Your task to perform on an android device: open the mobile data screen to see how much data has been used Image 0: 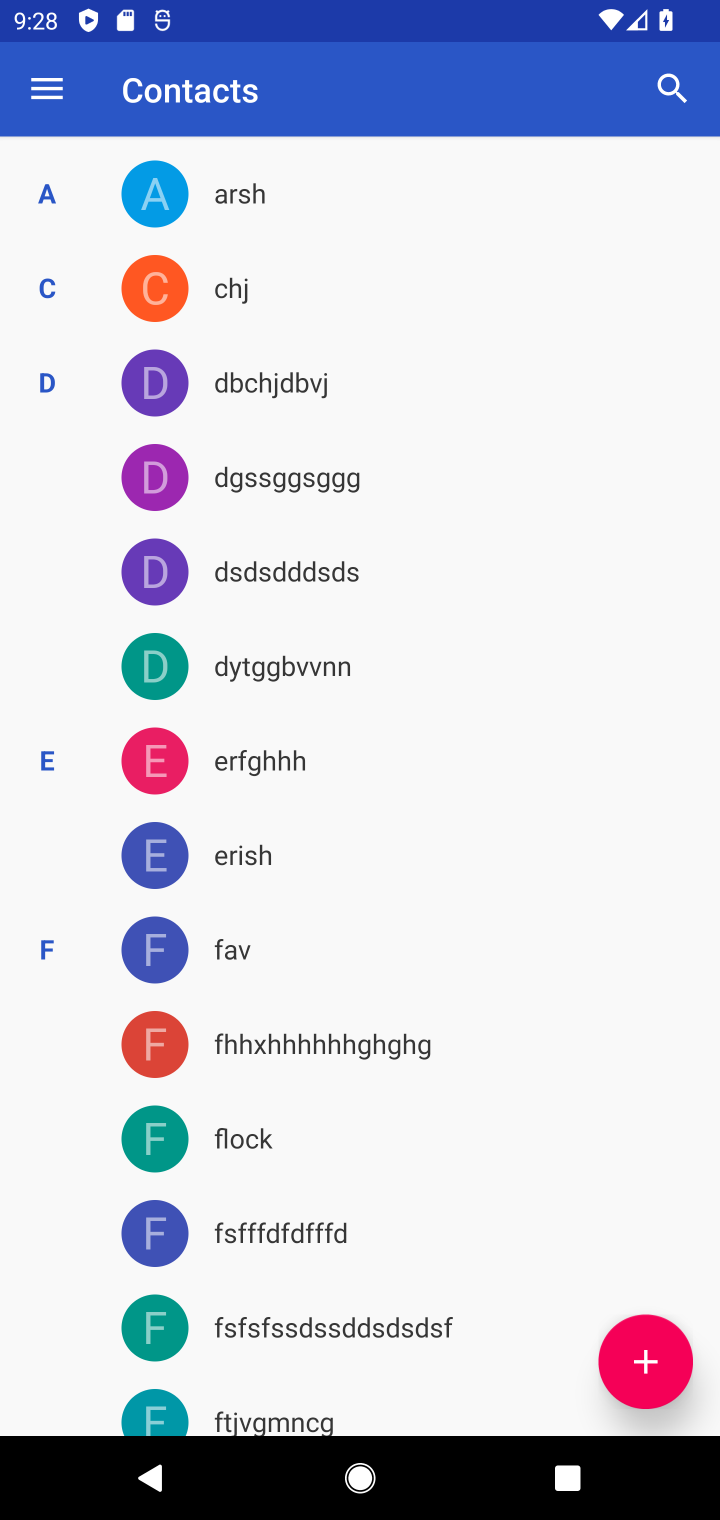
Step 0: press home button
Your task to perform on an android device: open the mobile data screen to see how much data has been used Image 1: 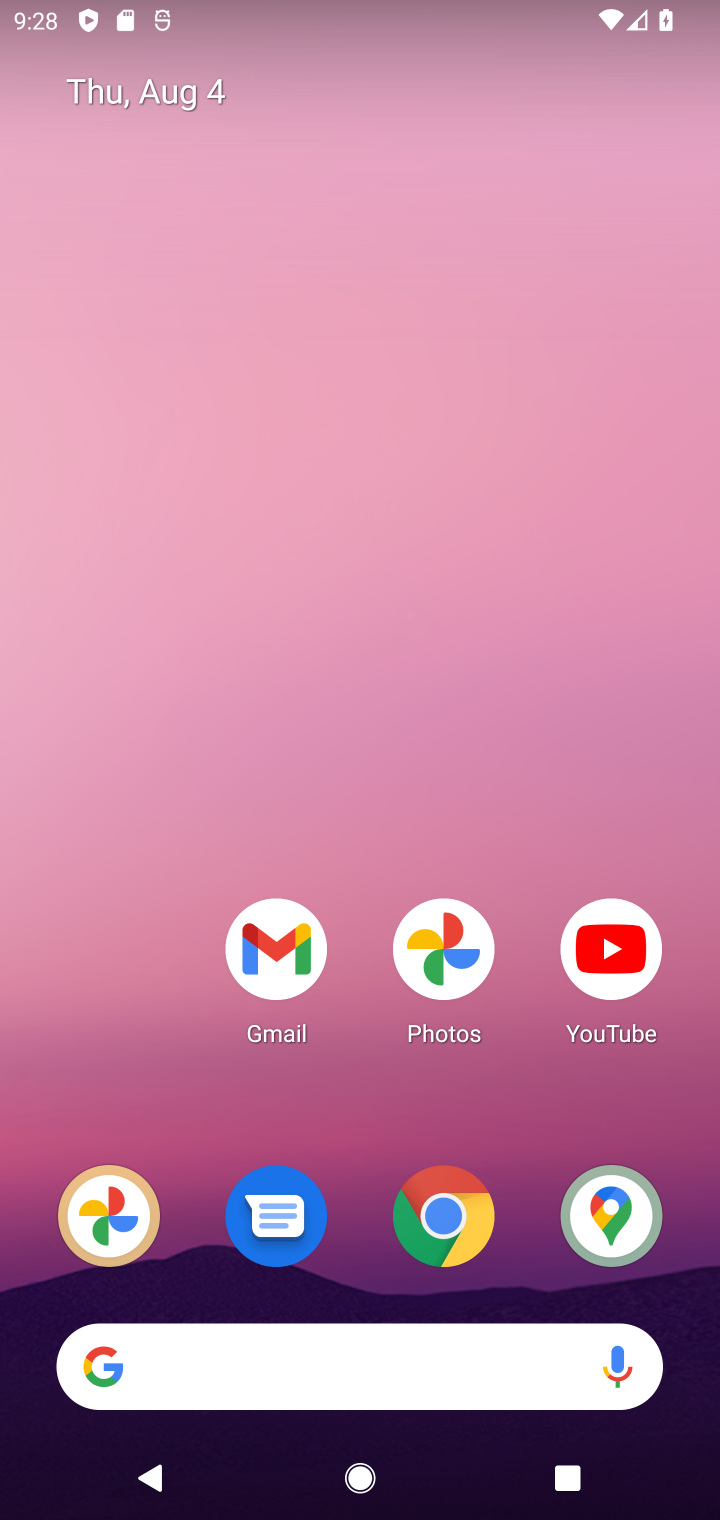
Step 1: drag from (286, 1356) to (390, 448)
Your task to perform on an android device: open the mobile data screen to see how much data has been used Image 2: 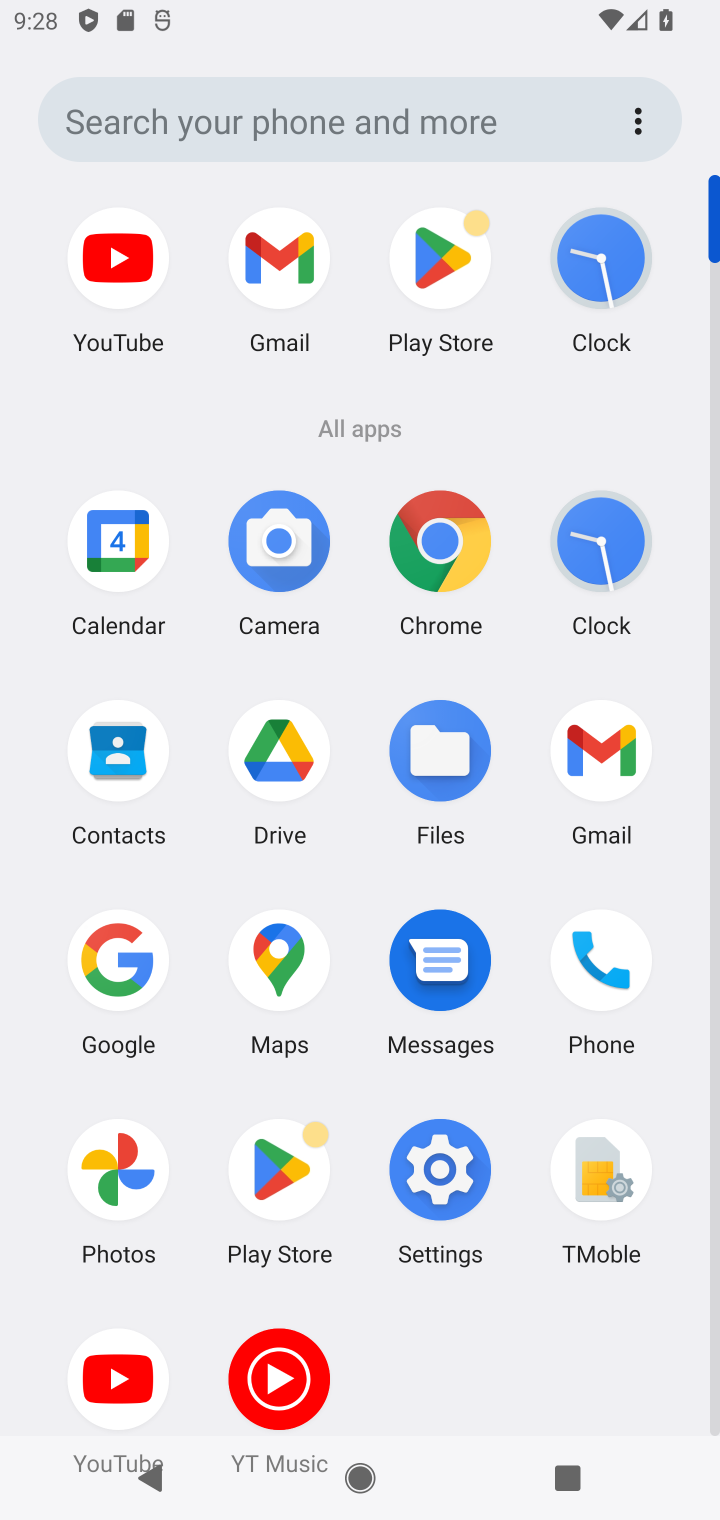
Step 2: click (440, 1166)
Your task to perform on an android device: open the mobile data screen to see how much data has been used Image 3: 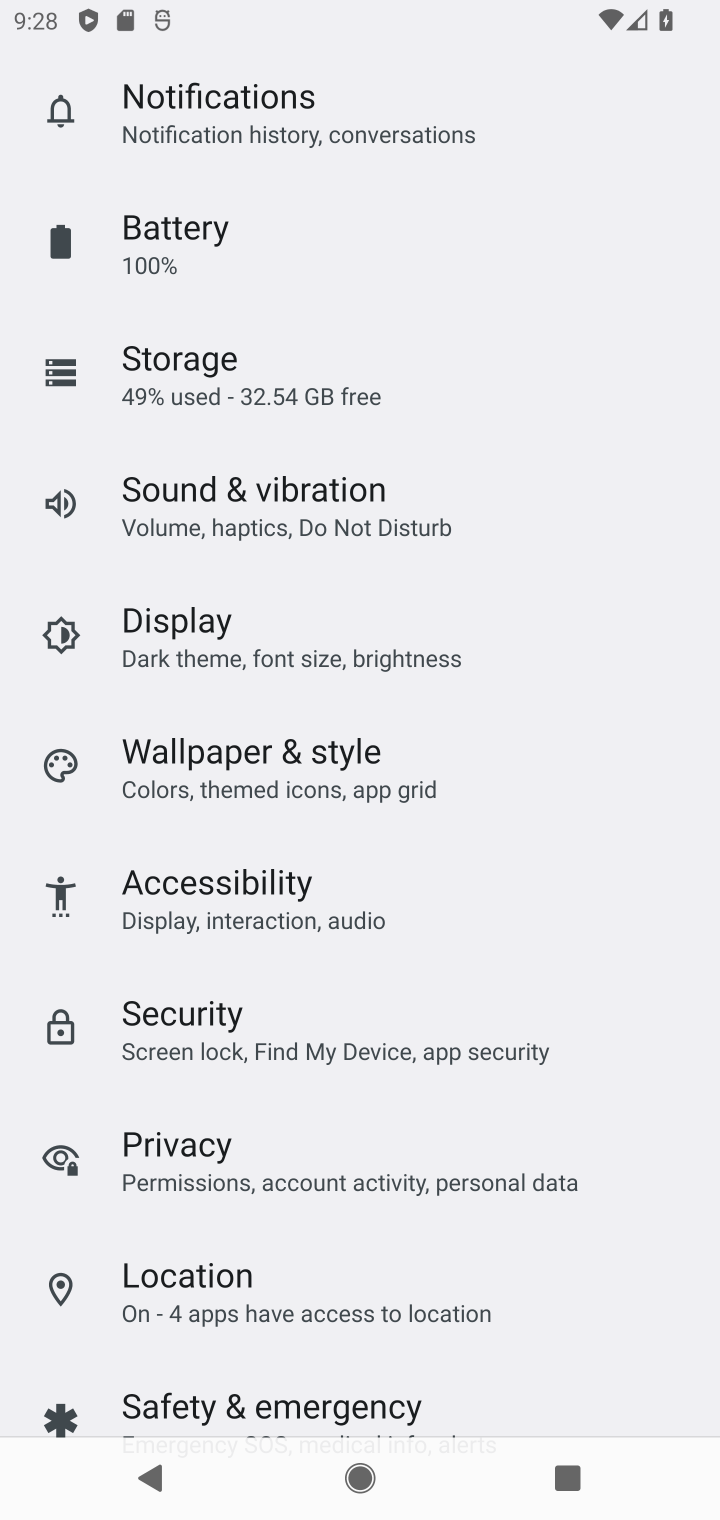
Step 3: drag from (444, 469) to (397, 1099)
Your task to perform on an android device: open the mobile data screen to see how much data has been used Image 4: 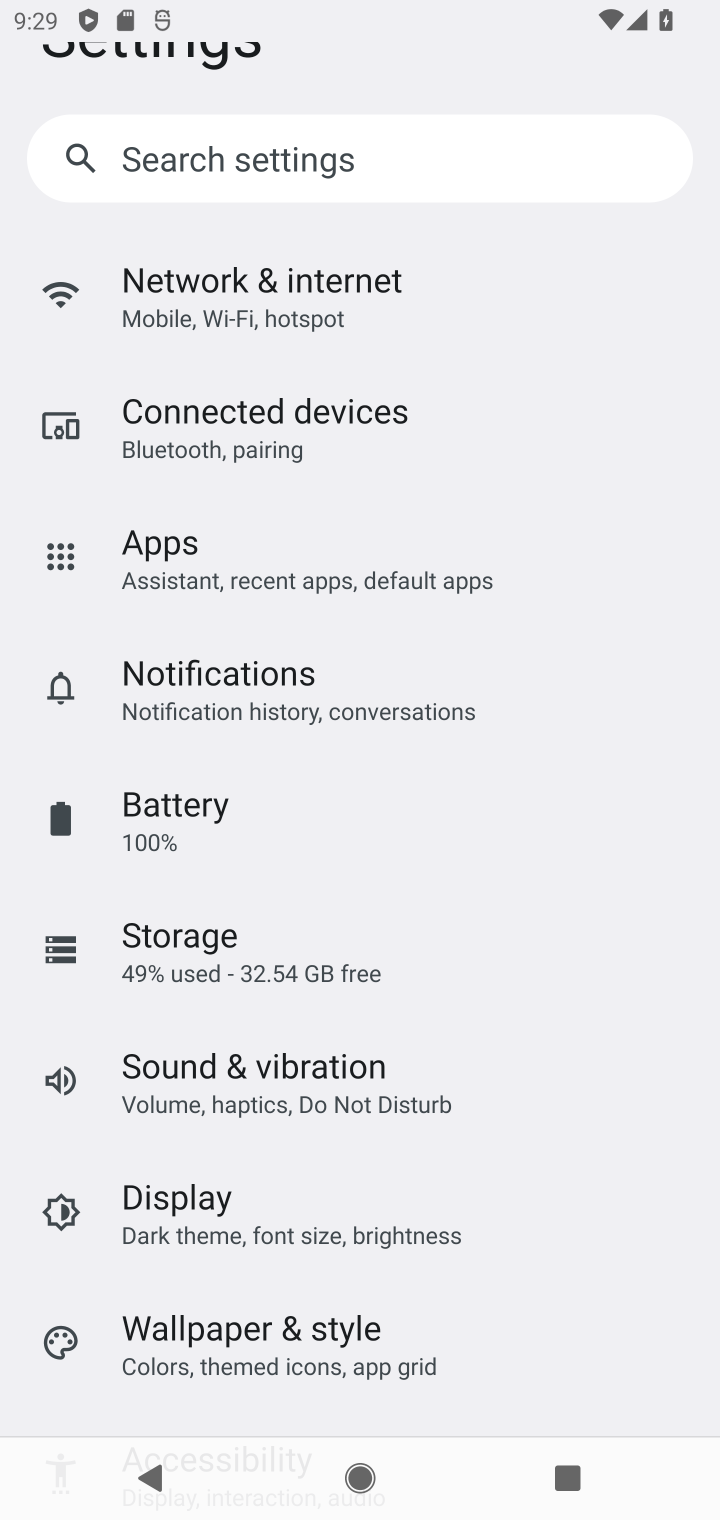
Step 4: drag from (435, 347) to (485, 856)
Your task to perform on an android device: open the mobile data screen to see how much data has been used Image 5: 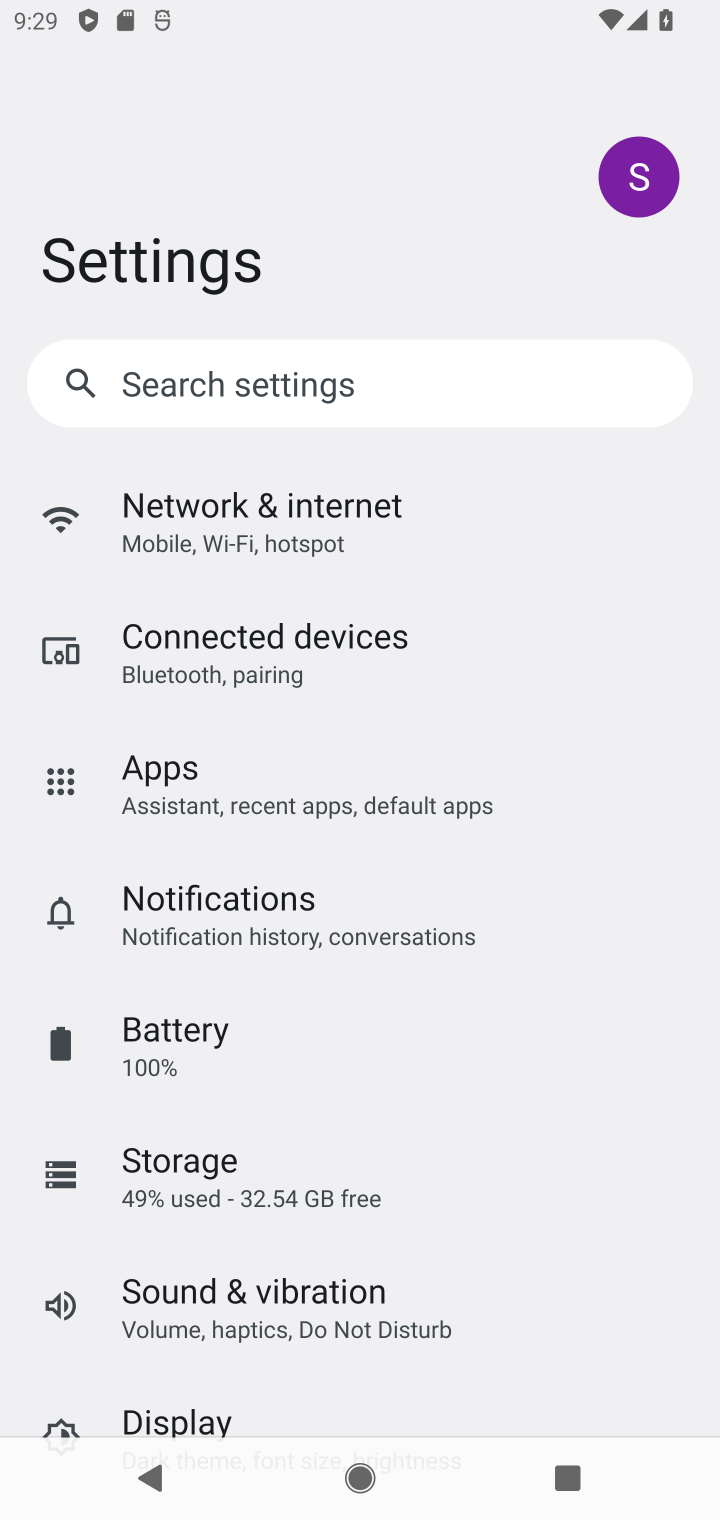
Step 5: click (270, 534)
Your task to perform on an android device: open the mobile data screen to see how much data has been used Image 6: 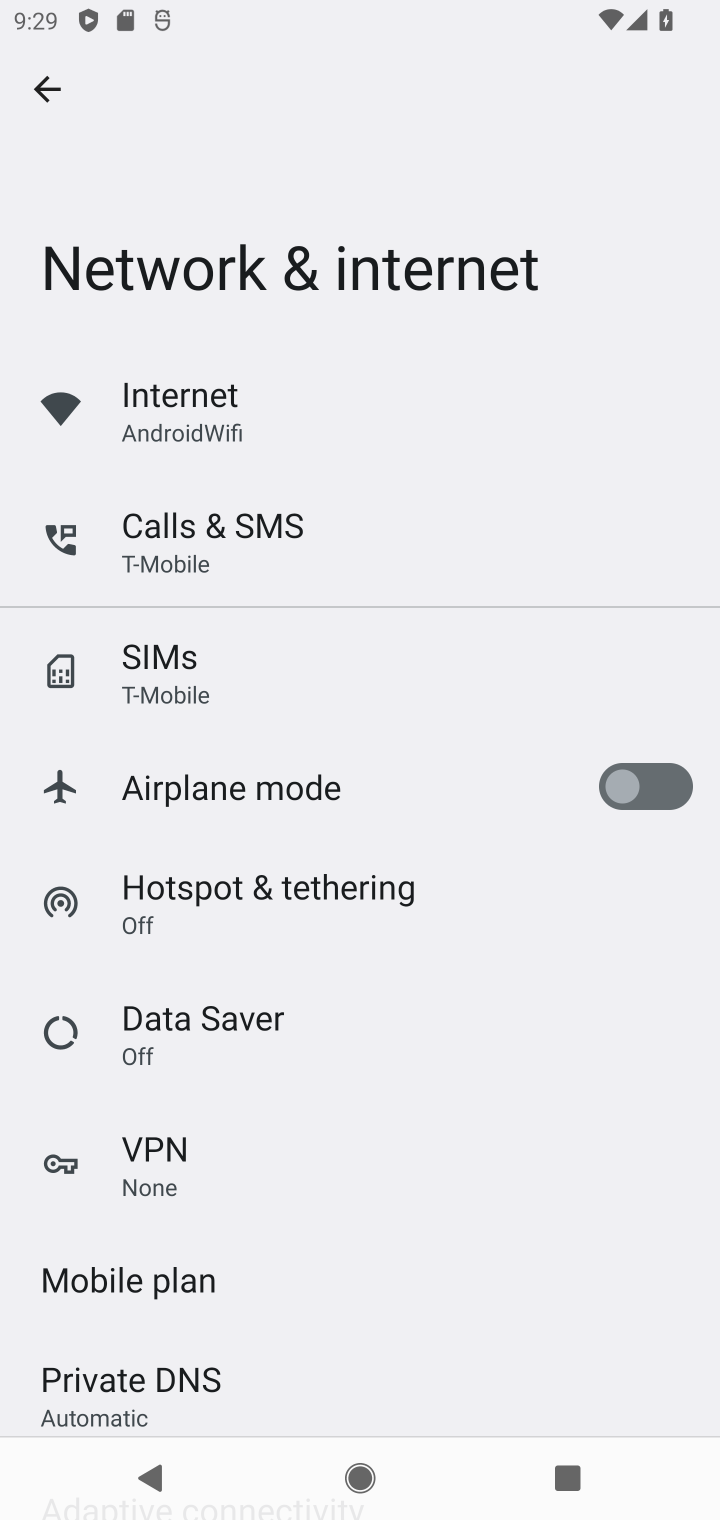
Step 6: click (221, 429)
Your task to perform on an android device: open the mobile data screen to see how much data has been used Image 7: 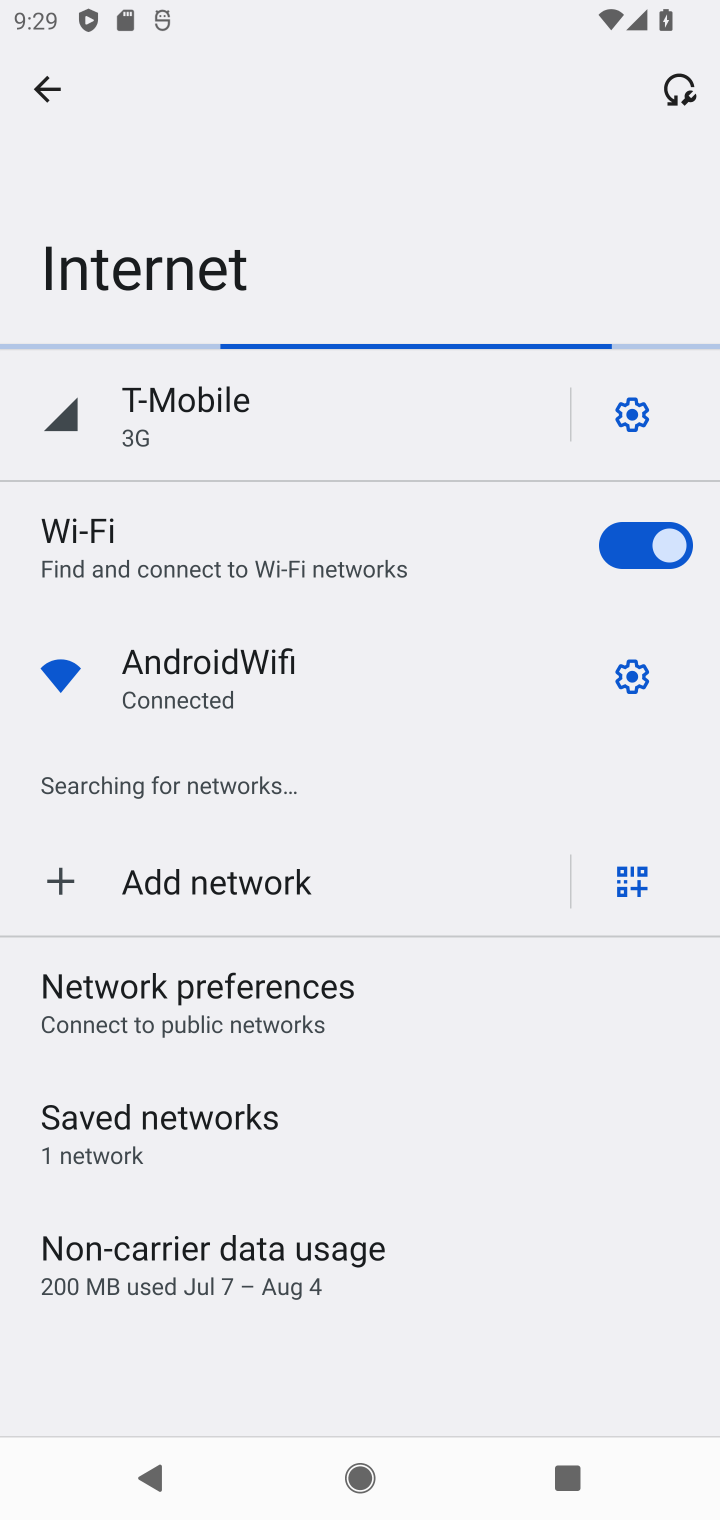
Step 7: click (634, 418)
Your task to perform on an android device: open the mobile data screen to see how much data has been used Image 8: 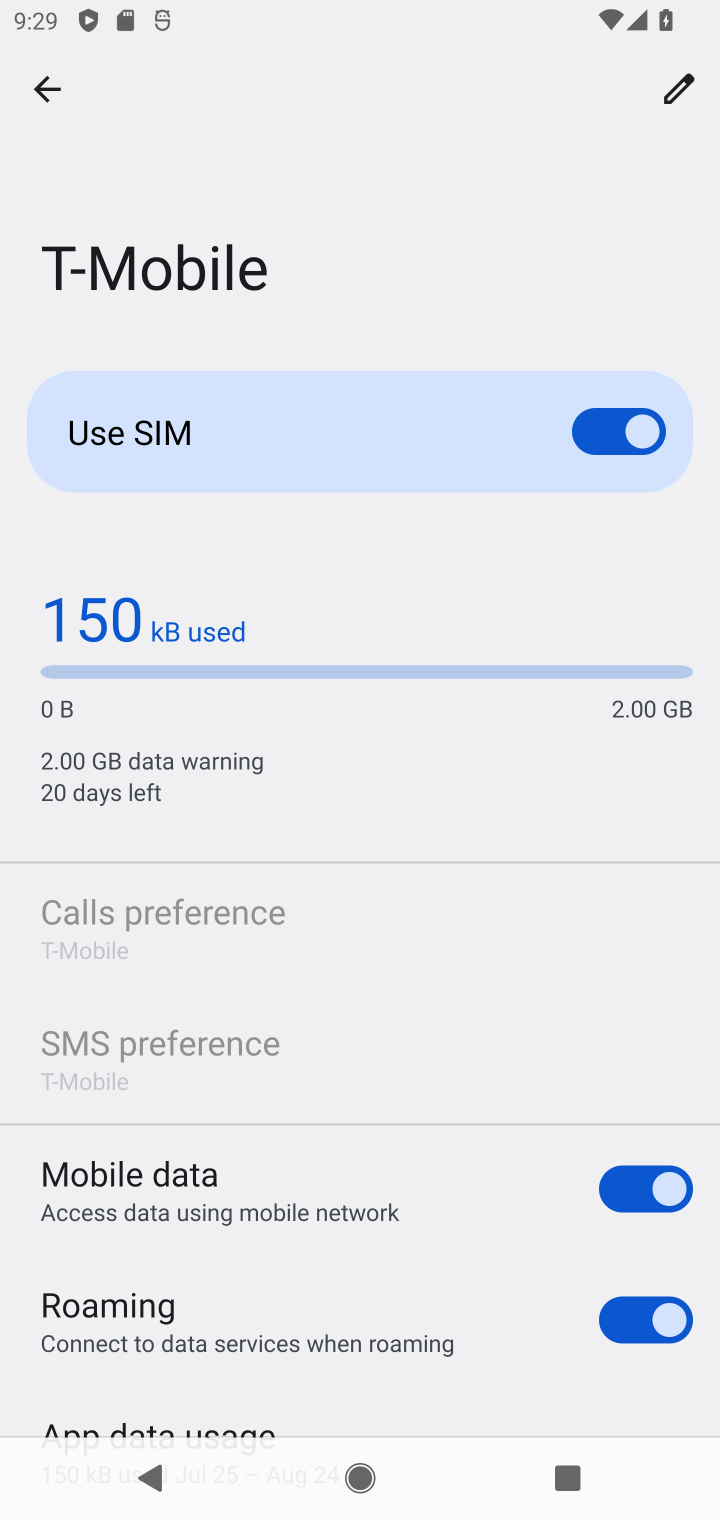
Step 8: task complete